Your task to perform on an android device: turn off location Image 0: 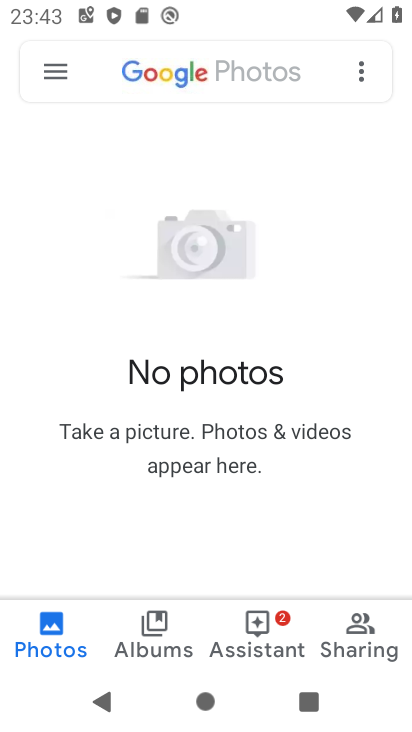
Step 0: press home button
Your task to perform on an android device: turn off location Image 1: 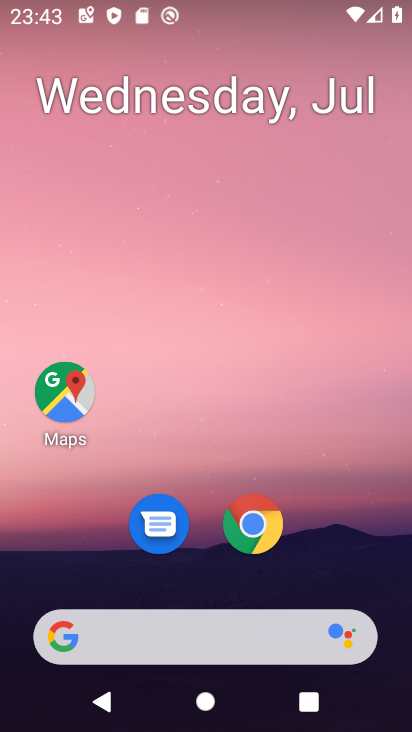
Step 1: drag from (205, 646) to (371, 0)
Your task to perform on an android device: turn off location Image 2: 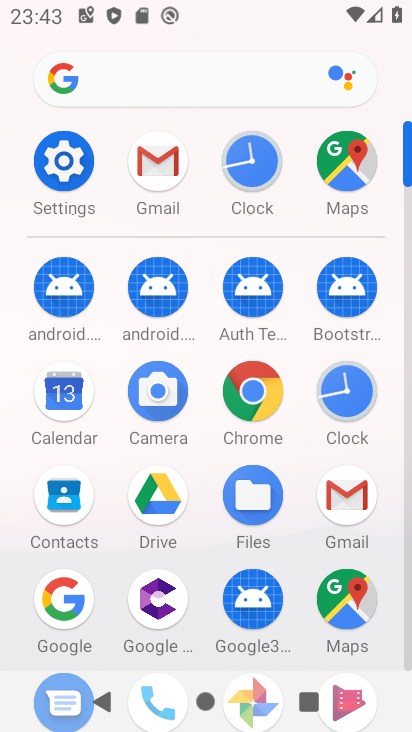
Step 2: click (72, 162)
Your task to perform on an android device: turn off location Image 3: 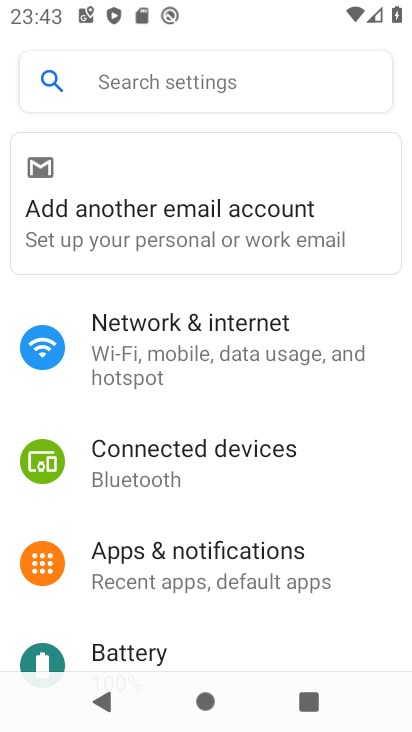
Step 3: drag from (246, 654) to (366, 236)
Your task to perform on an android device: turn off location Image 4: 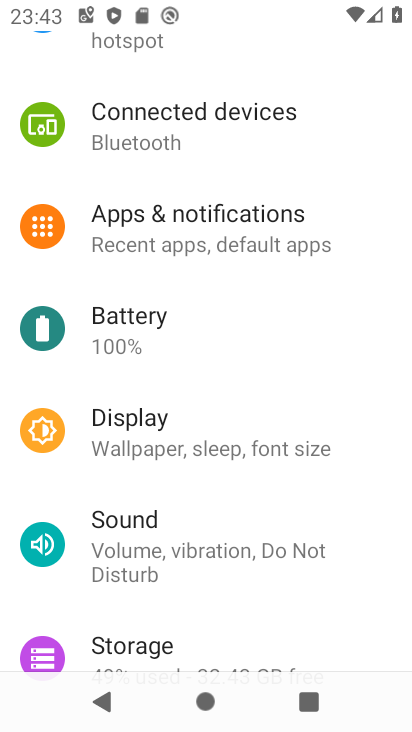
Step 4: drag from (242, 597) to (397, 40)
Your task to perform on an android device: turn off location Image 5: 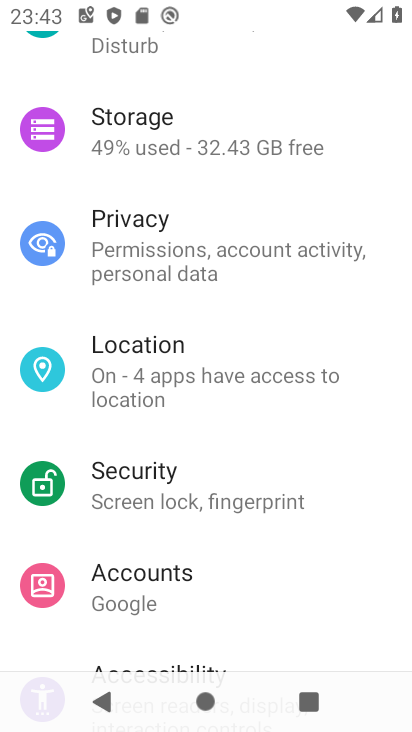
Step 5: click (178, 366)
Your task to perform on an android device: turn off location Image 6: 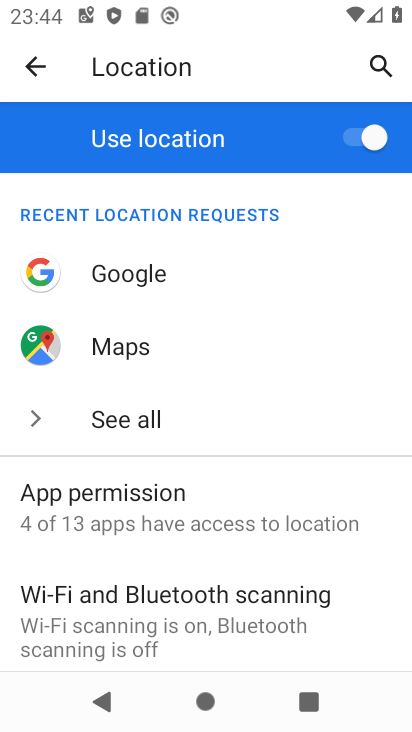
Step 6: click (354, 138)
Your task to perform on an android device: turn off location Image 7: 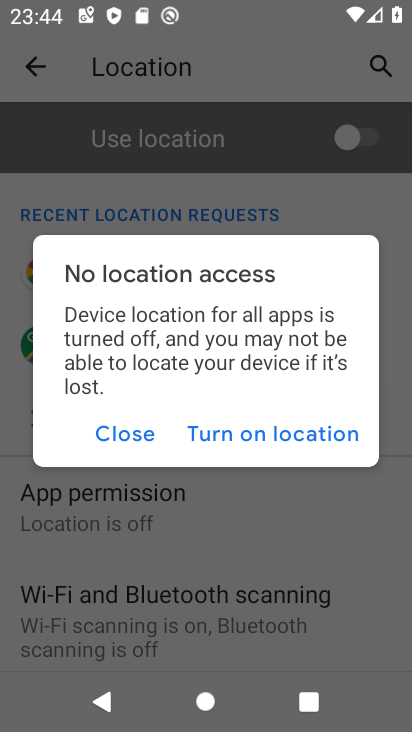
Step 7: click (146, 442)
Your task to perform on an android device: turn off location Image 8: 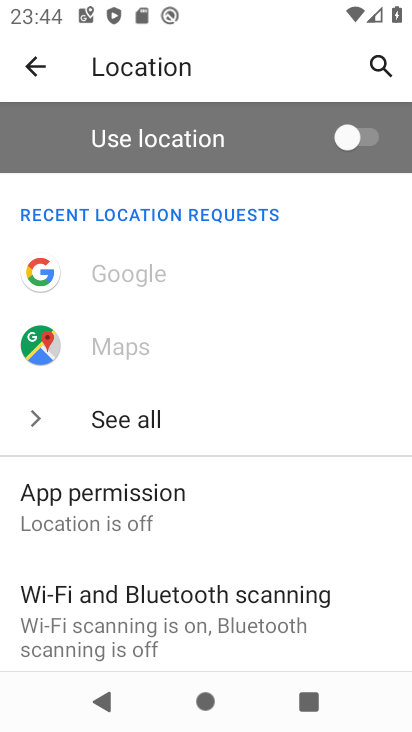
Step 8: task complete